Your task to perform on an android device: Go to CNN.com Image 0: 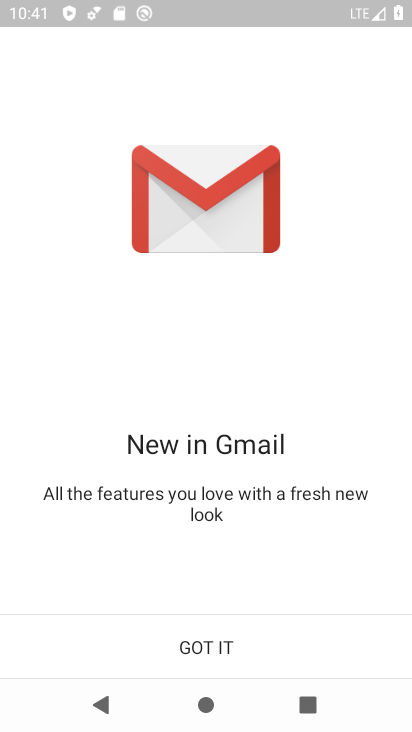
Step 0: press home button
Your task to perform on an android device: Go to CNN.com Image 1: 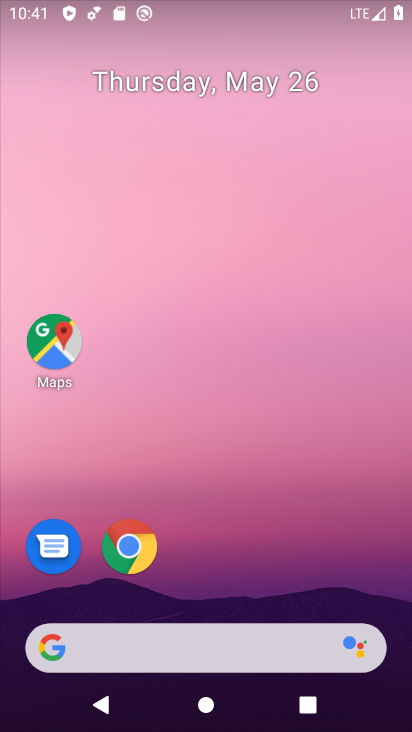
Step 1: drag from (216, 577) to (262, 31)
Your task to perform on an android device: Go to CNN.com Image 2: 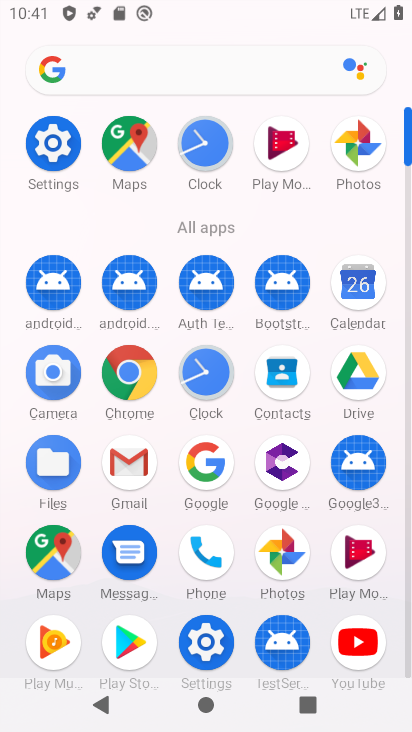
Step 2: click (208, 457)
Your task to perform on an android device: Go to CNN.com Image 3: 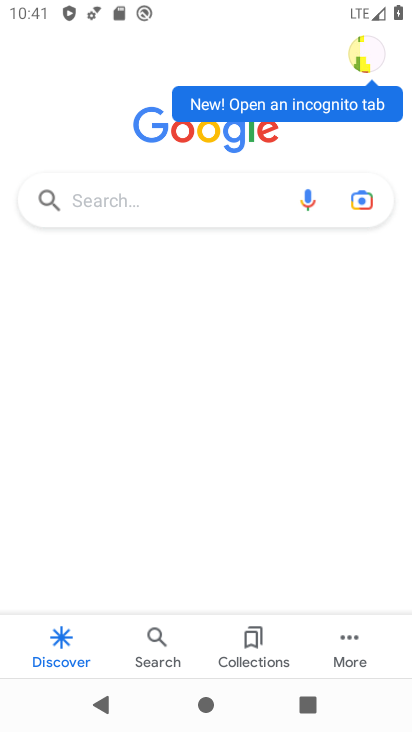
Step 3: click (155, 197)
Your task to perform on an android device: Go to CNN.com Image 4: 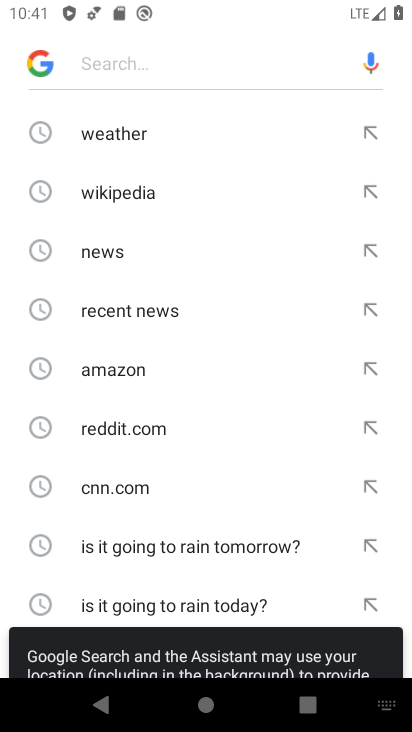
Step 4: click (124, 486)
Your task to perform on an android device: Go to CNN.com Image 5: 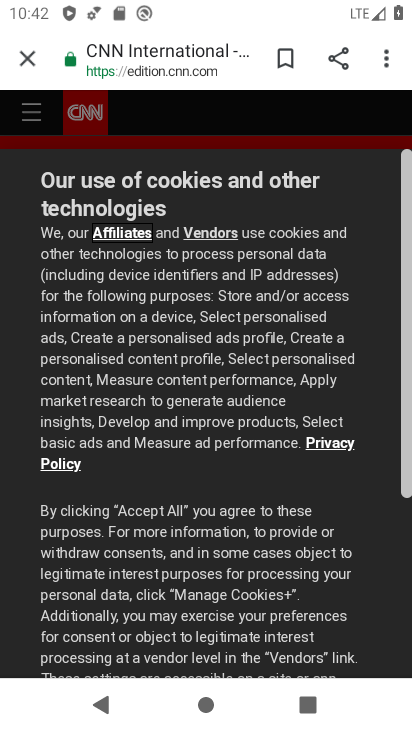
Step 5: task complete